Your task to perform on an android device: Search for flights from Zurich to Buenos aires Image 0: 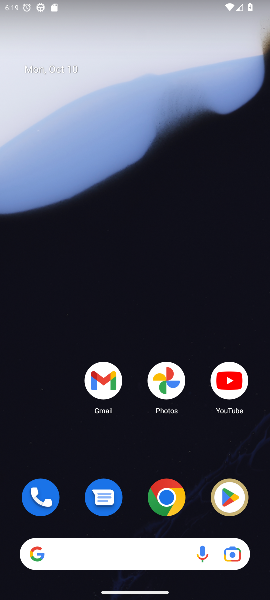
Step 0: drag from (129, 481) to (157, 191)
Your task to perform on an android device: Search for flights from Zurich to Buenos aires Image 1: 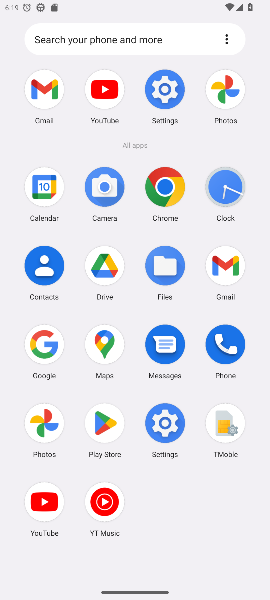
Step 1: click (47, 341)
Your task to perform on an android device: Search for flights from Zurich to Buenos aires Image 2: 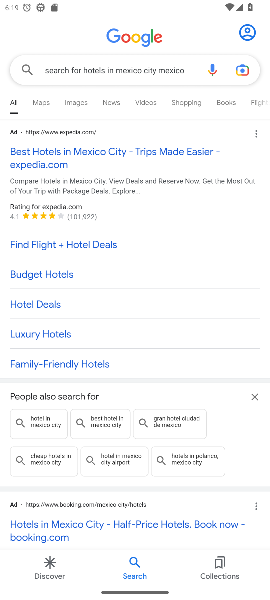
Step 2: click (188, 64)
Your task to perform on an android device: Search for flights from Zurich to Buenos aires Image 3: 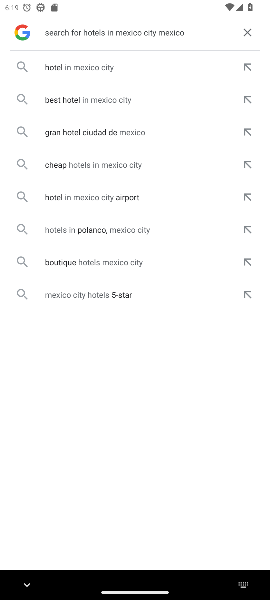
Step 3: click (246, 26)
Your task to perform on an android device: Search for flights from Zurich to Buenos aires Image 4: 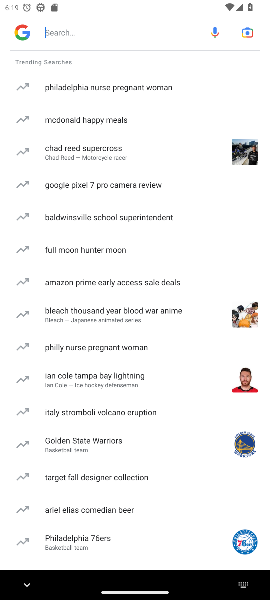
Step 4: click (118, 29)
Your task to perform on an android device: Search for flights from Zurich to Buenos aires Image 5: 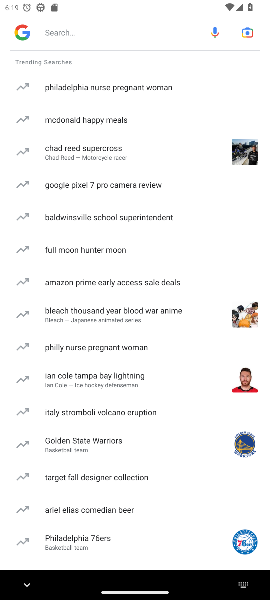
Step 5: type "Search for flights from Zurich to Buenos aires "
Your task to perform on an android device: Search for flights from Zurich to Buenos aires Image 6: 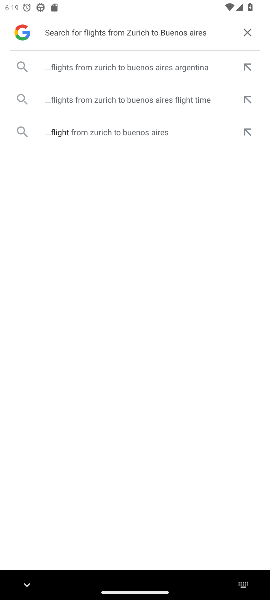
Step 6: click (93, 66)
Your task to perform on an android device: Search for flights from Zurich to Buenos aires Image 7: 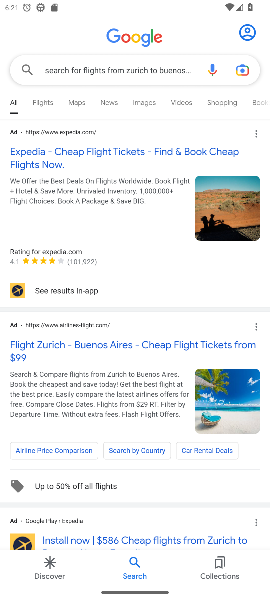
Step 7: task complete